Your task to perform on an android device: Open Android settings Image 0: 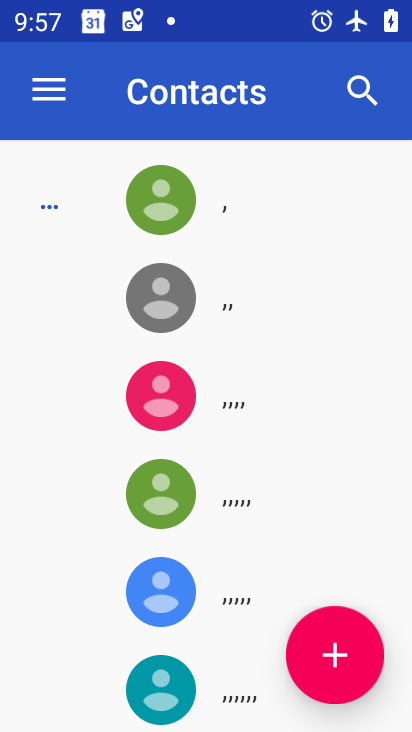
Step 0: press home button
Your task to perform on an android device: Open Android settings Image 1: 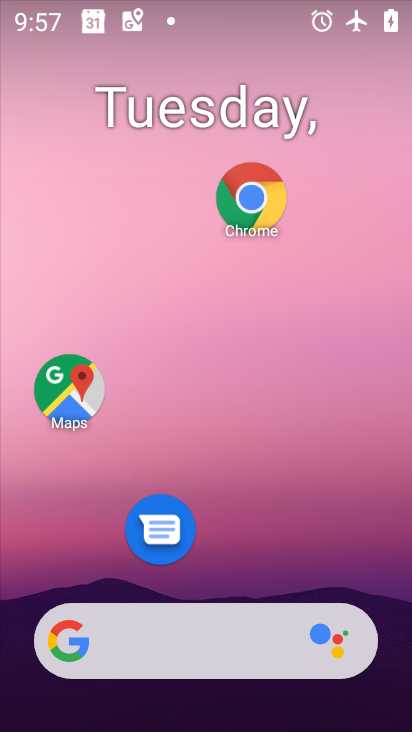
Step 1: drag from (337, 509) to (340, 1)
Your task to perform on an android device: Open Android settings Image 2: 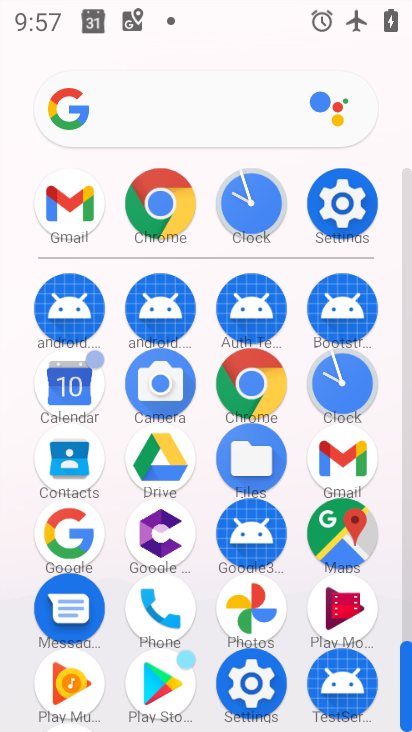
Step 2: click (354, 225)
Your task to perform on an android device: Open Android settings Image 3: 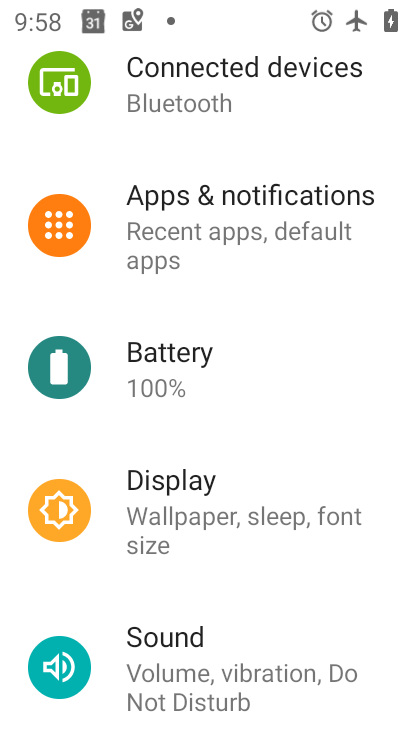
Step 3: task complete